Your task to perform on an android device: Open Chrome and go to the settings page Image 0: 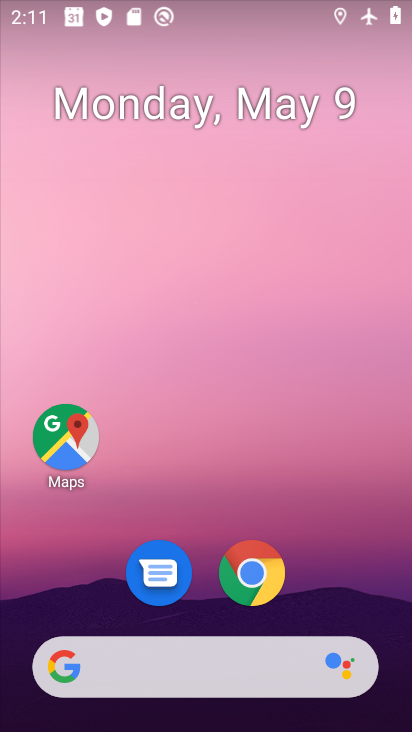
Step 0: drag from (358, 630) to (245, 203)
Your task to perform on an android device: Open Chrome and go to the settings page Image 1: 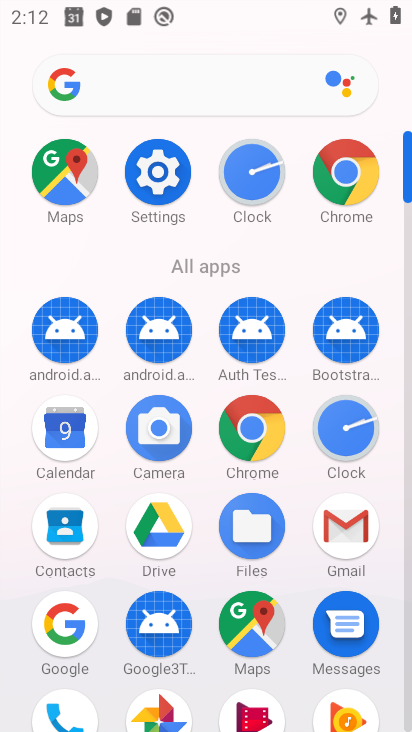
Step 1: click (146, 177)
Your task to perform on an android device: Open Chrome and go to the settings page Image 2: 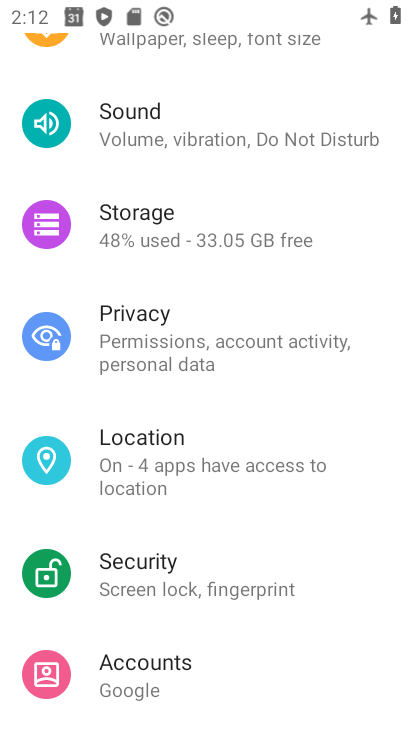
Step 2: drag from (173, 187) to (203, 572)
Your task to perform on an android device: Open Chrome and go to the settings page Image 3: 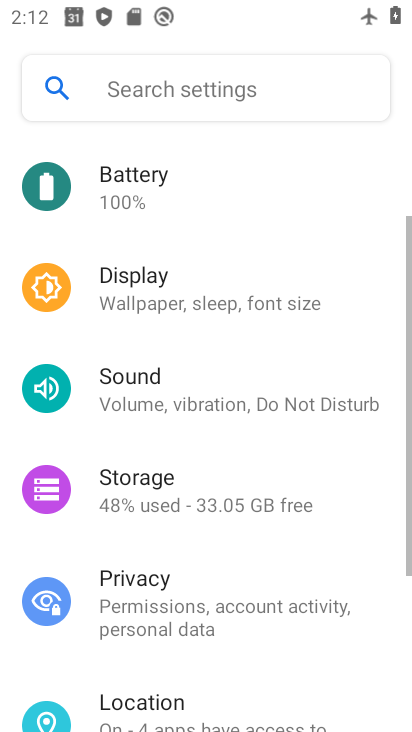
Step 3: drag from (170, 183) to (238, 468)
Your task to perform on an android device: Open Chrome and go to the settings page Image 4: 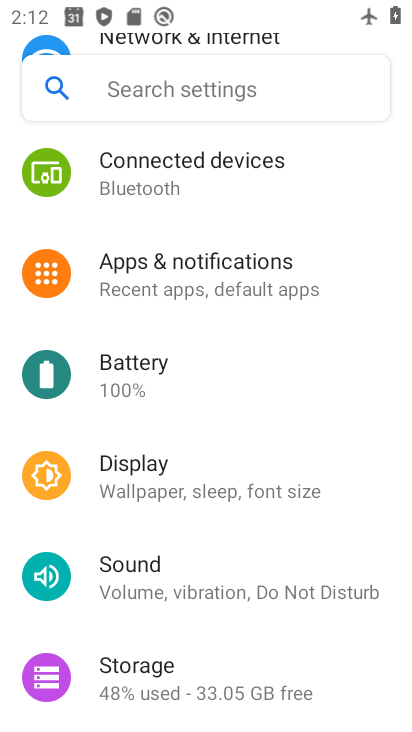
Step 4: press home button
Your task to perform on an android device: Open Chrome and go to the settings page Image 5: 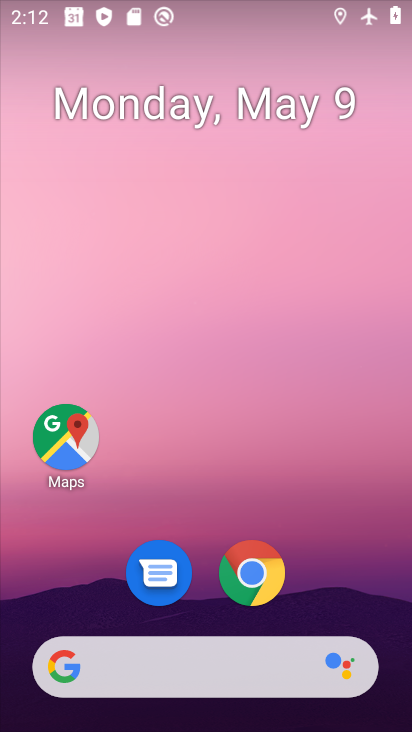
Step 5: click (244, 568)
Your task to perform on an android device: Open Chrome and go to the settings page Image 6: 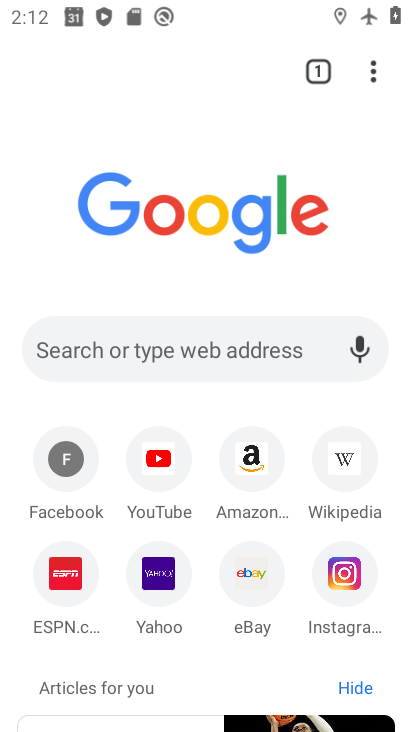
Step 6: click (376, 70)
Your task to perform on an android device: Open Chrome and go to the settings page Image 7: 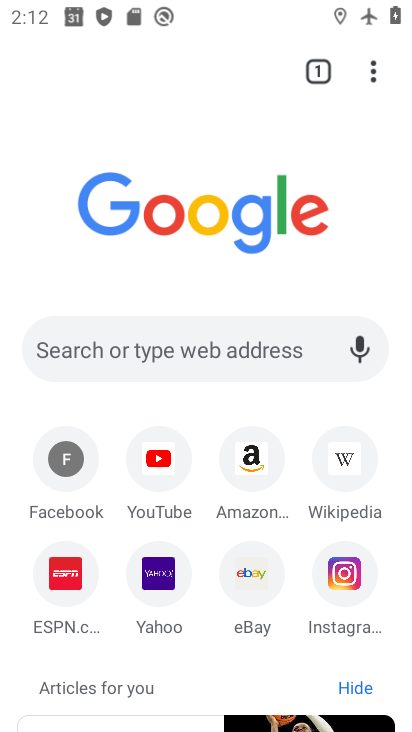
Step 7: drag from (376, 70) to (122, 586)
Your task to perform on an android device: Open Chrome and go to the settings page Image 8: 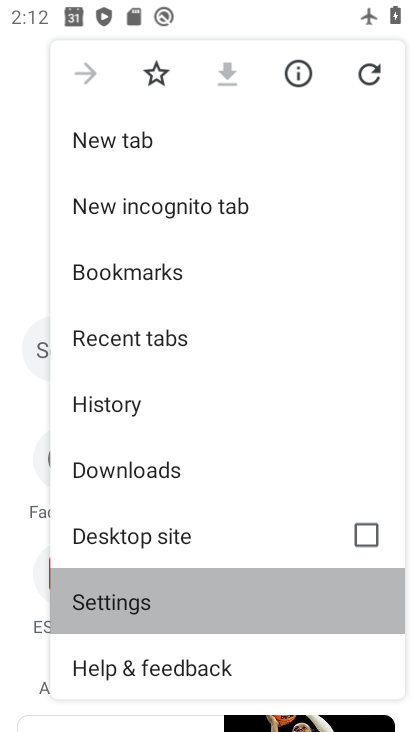
Step 8: click (117, 592)
Your task to perform on an android device: Open Chrome and go to the settings page Image 9: 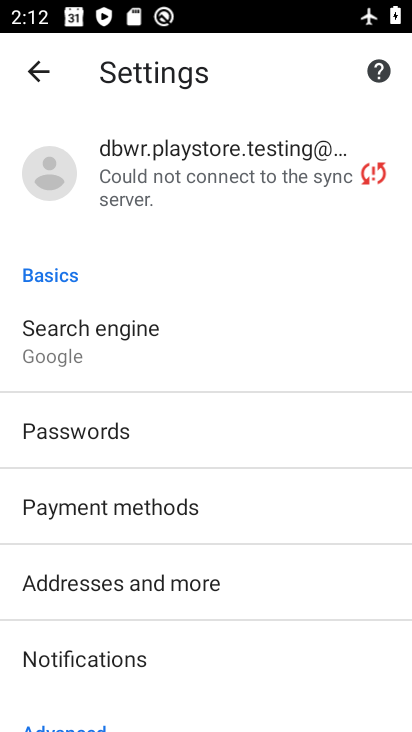
Step 9: task complete